Your task to perform on an android device: turn off translation in the chrome app Image 0: 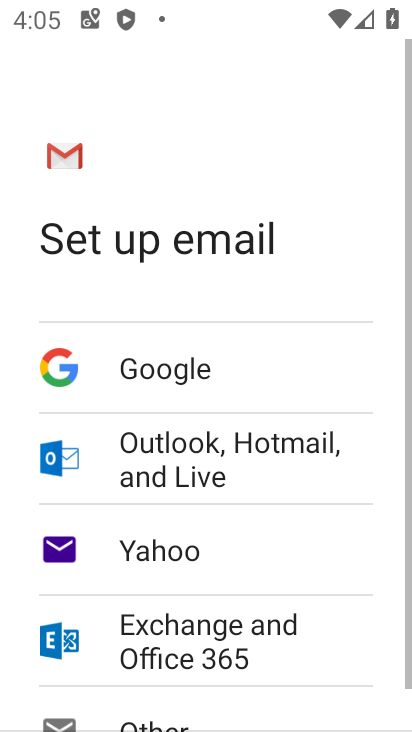
Step 0: press home button
Your task to perform on an android device: turn off translation in the chrome app Image 1: 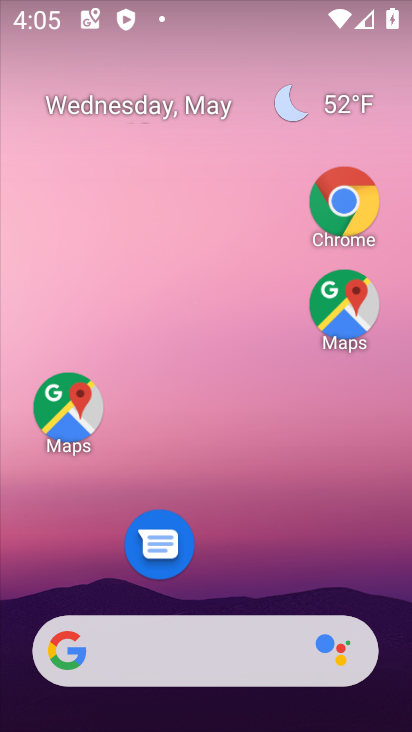
Step 1: drag from (272, 536) to (294, 481)
Your task to perform on an android device: turn off translation in the chrome app Image 2: 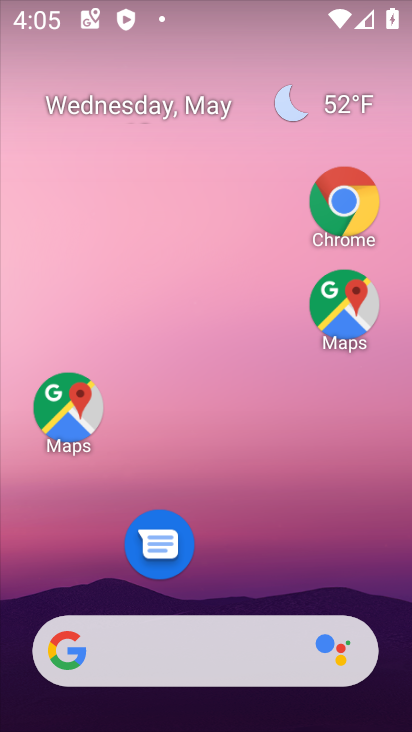
Step 2: click (329, 216)
Your task to perform on an android device: turn off translation in the chrome app Image 3: 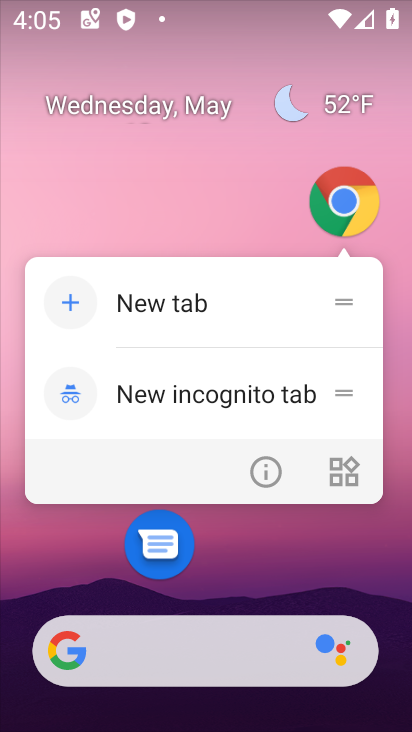
Step 3: click (337, 206)
Your task to perform on an android device: turn off translation in the chrome app Image 4: 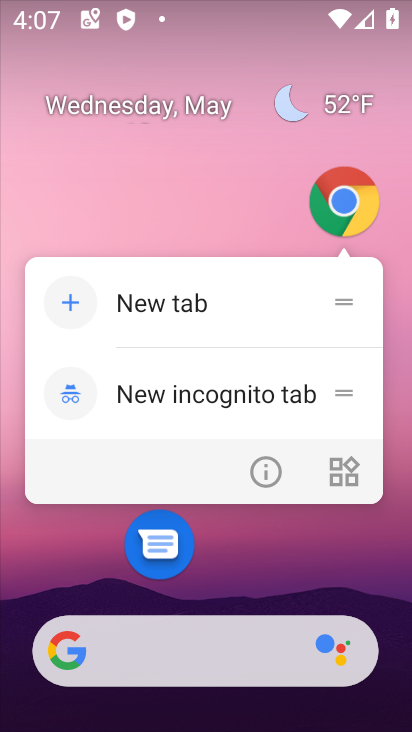
Step 4: drag from (341, 214) to (372, 241)
Your task to perform on an android device: turn off translation in the chrome app Image 5: 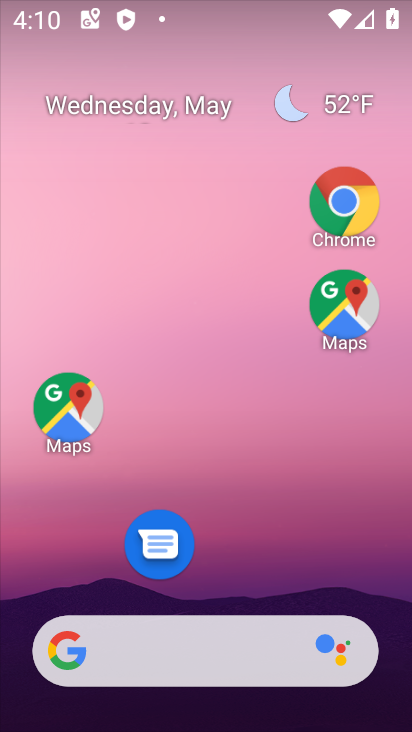
Step 5: click (331, 226)
Your task to perform on an android device: turn off translation in the chrome app Image 6: 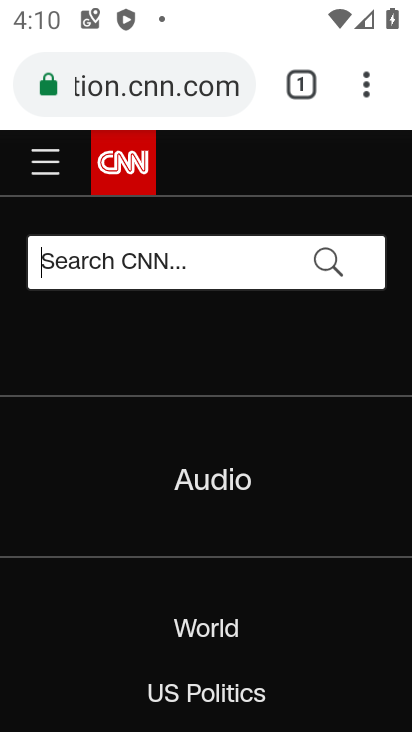
Step 6: click (360, 94)
Your task to perform on an android device: turn off translation in the chrome app Image 7: 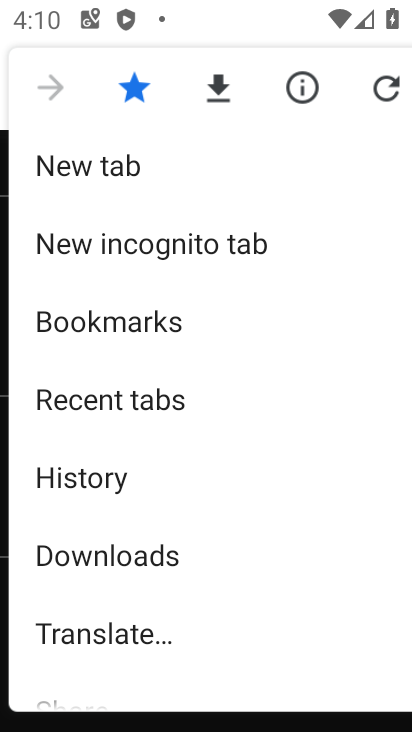
Step 7: drag from (131, 496) to (68, 216)
Your task to perform on an android device: turn off translation in the chrome app Image 8: 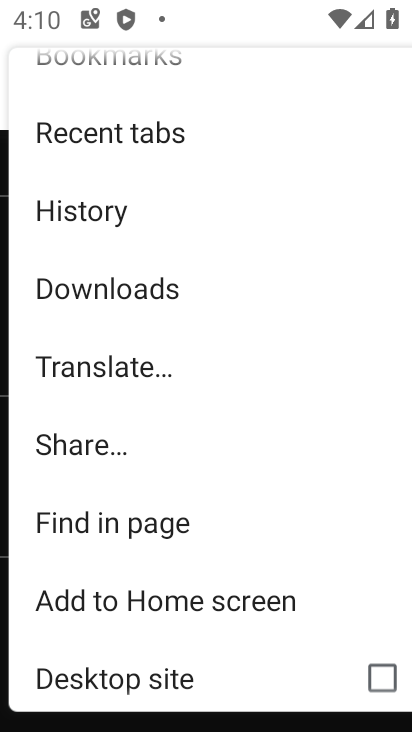
Step 8: drag from (123, 583) to (77, 348)
Your task to perform on an android device: turn off translation in the chrome app Image 9: 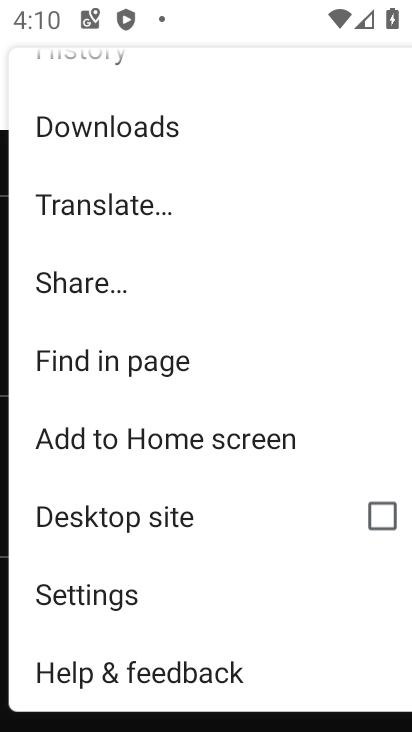
Step 9: click (117, 589)
Your task to perform on an android device: turn off translation in the chrome app Image 10: 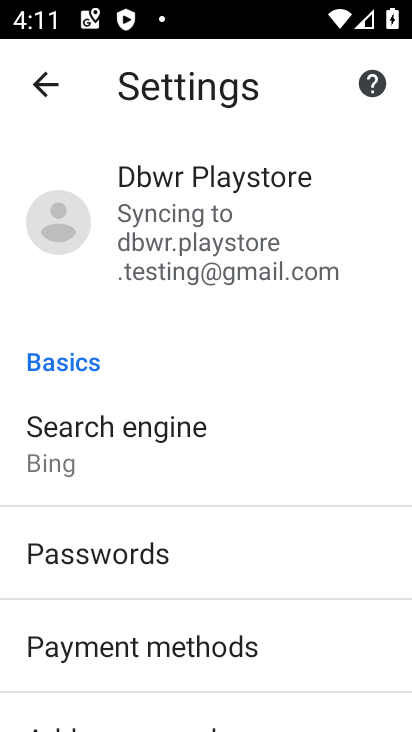
Step 10: drag from (97, 588) to (49, 275)
Your task to perform on an android device: turn off translation in the chrome app Image 11: 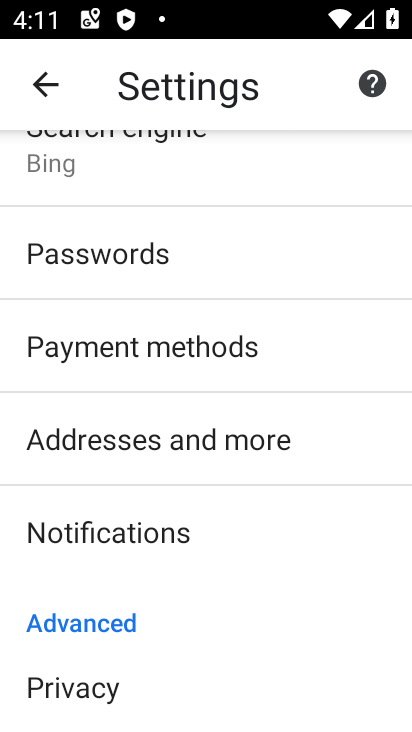
Step 11: drag from (130, 541) to (69, 387)
Your task to perform on an android device: turn off translation in the chrome app Image 12: 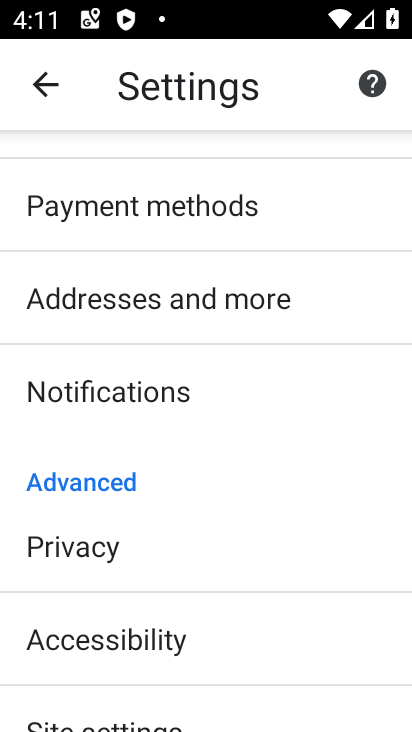
Step 12: drag from (153, 381) to (150, 263)
Your task to perform on an android device: turn off translation in the chrome app Image 13: 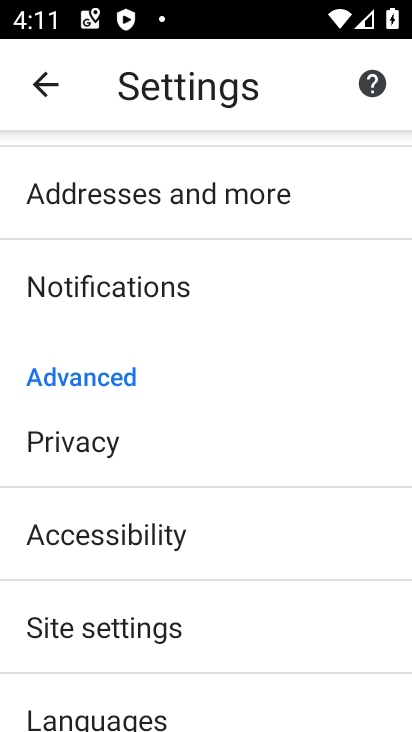
Step 13: click (128, 711)
Your task to perform on an android device: turn off translation in the chrome app Image 14: 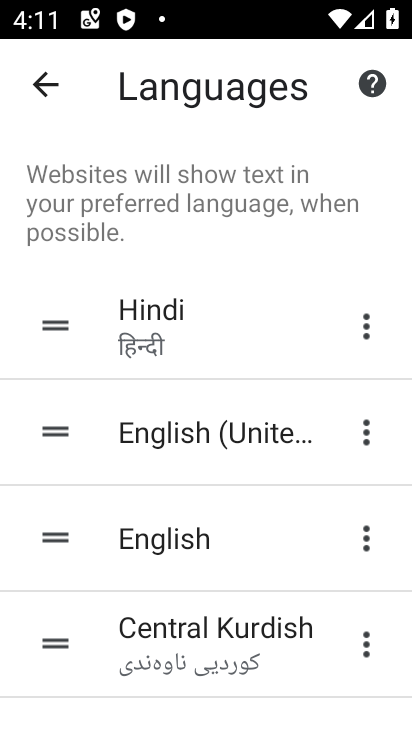
Step 14: drag from (187, 483) to (134, 290)
Your task to perform on an android device: turn off translation in the chrome app Image 15: 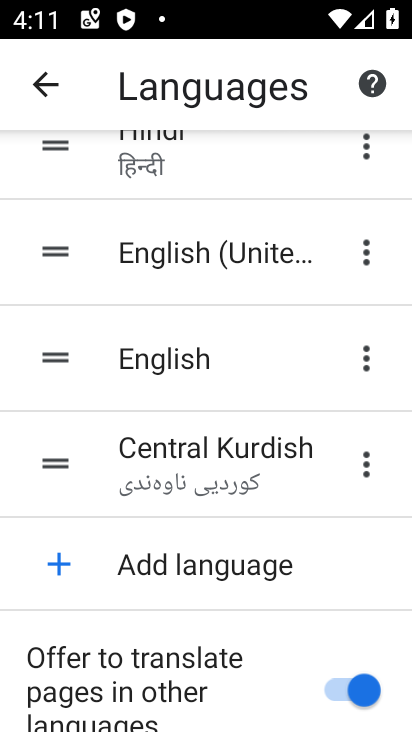
Step 15: click (331, 690)
Your task to perform on an android device: turn off translation in the chrome app Image 16: 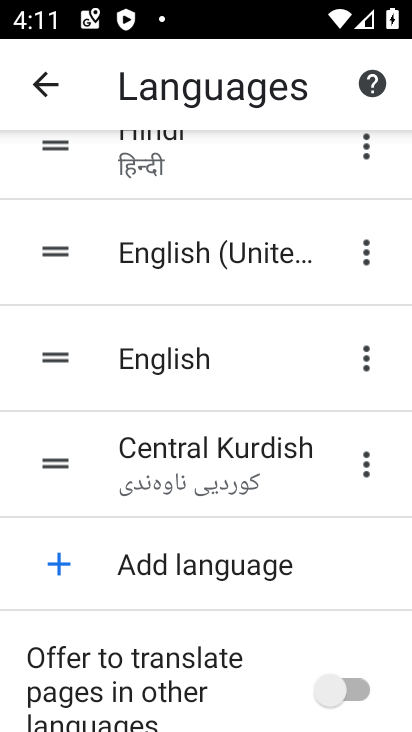
Step 16: task complete